Your task to perform on an android device: What's on my calendar today? Image 0: 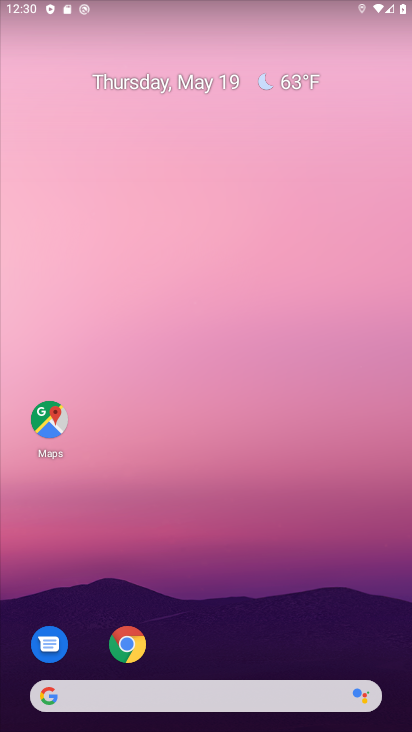
Step 0: drag from (400, 682) to (368, 269)
Your task to perform on an android device: What's on my calendar today? Image 1: 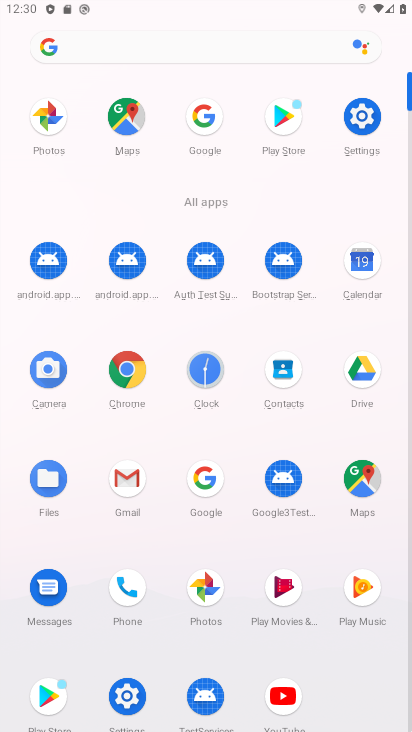
Step 1: click (365, 266)
Your task to perform on an android device: What's on my calendar today? Image 2: 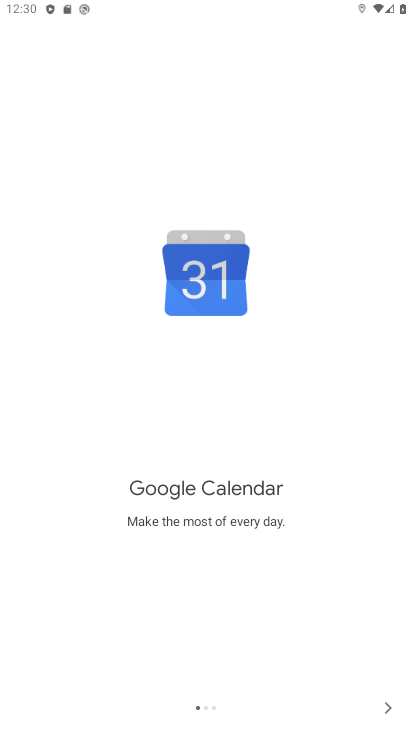
Step 2: click (390, 708)
Your task to perform on an android device: What's on my calendar today? Image 3: 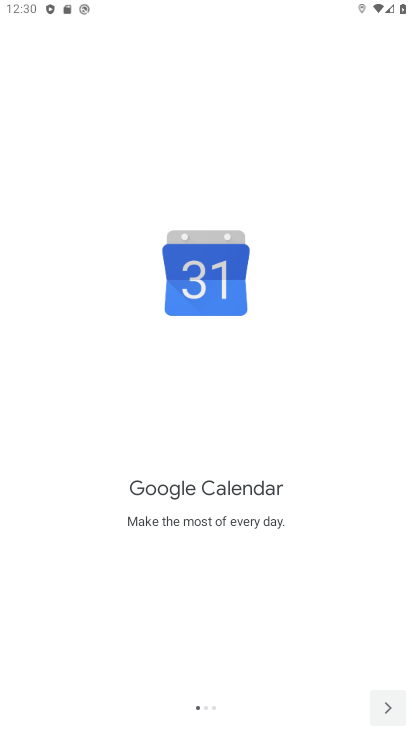
Step 3: click (387, 705)
Your task to perform on an android device: What's on my calendar today? Image 4: 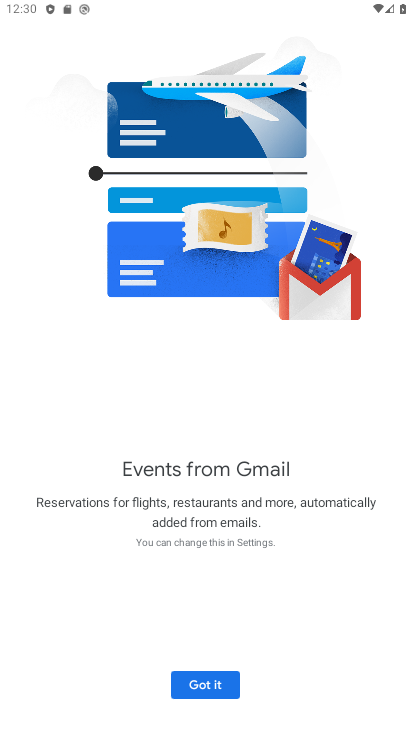
Step 4: click (200, 679)
Your task to perform on an android device: What's on my calendar today? Image 5: 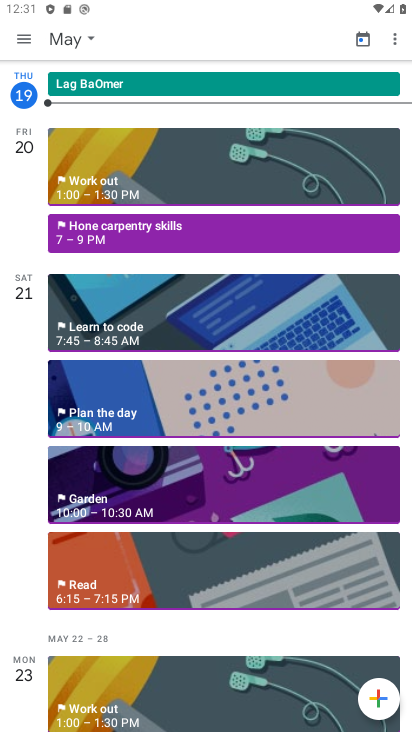
Step 5: click (21, 40)
Your task to perform on an android device: What's on my calendar today? Image 6: 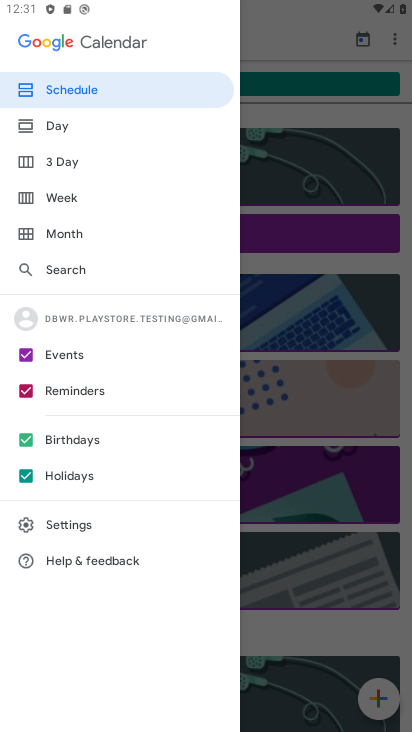
Step 6: click (306, 125)
Your task to perform on an android device: What's on my calendar today? Image 7: 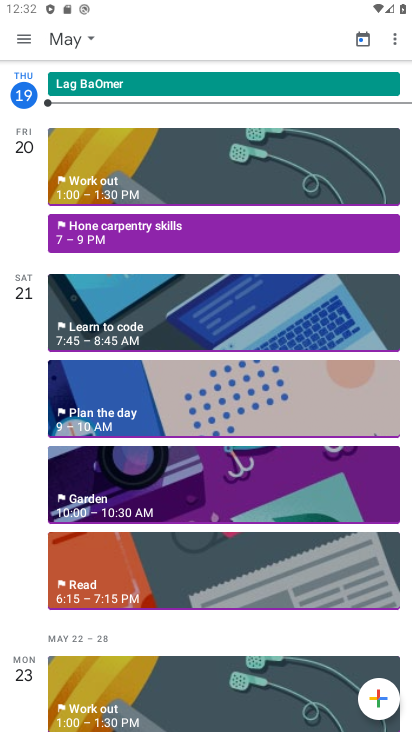
Step 7: click (15, 94)
Your task to perform on an android device: What's on my calendar today? Image 8: 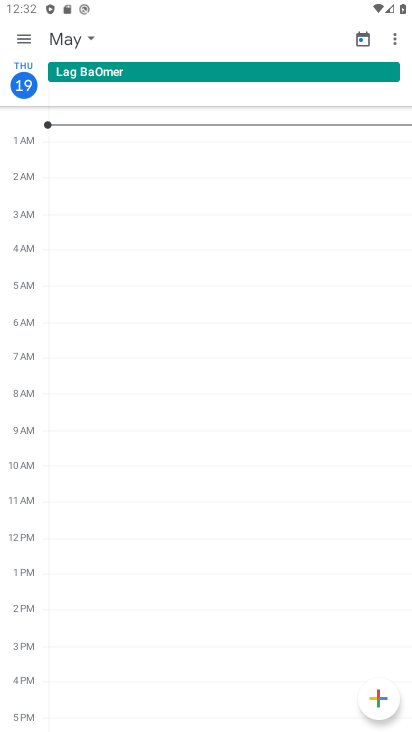
Step 8: click (87, 39)
Your task to perform on an android device: What's on my calendar today? Image 9: 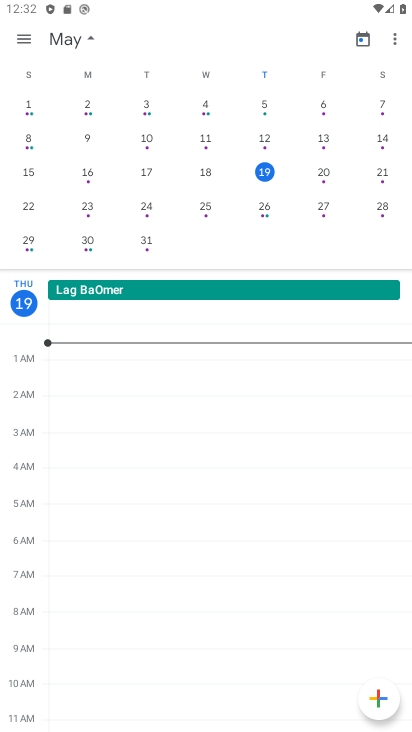
Step 9: click (259, 165)
Your task to perform on an android device: What's on my calendar today? Image 10: 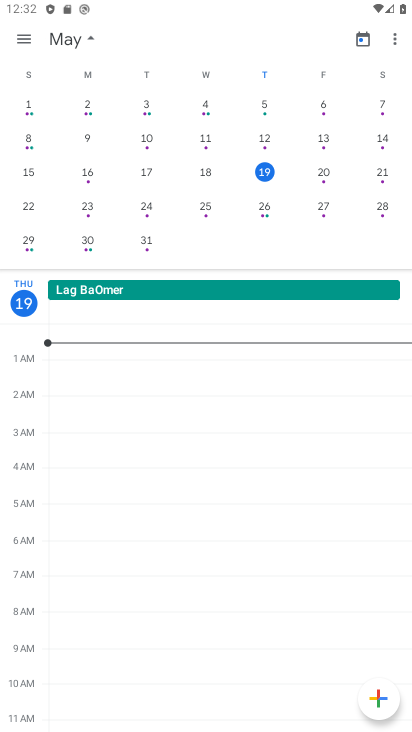
Step 10: click (259, 170)
Your task to perform on an android device: What's on my calendar today? Image 11: 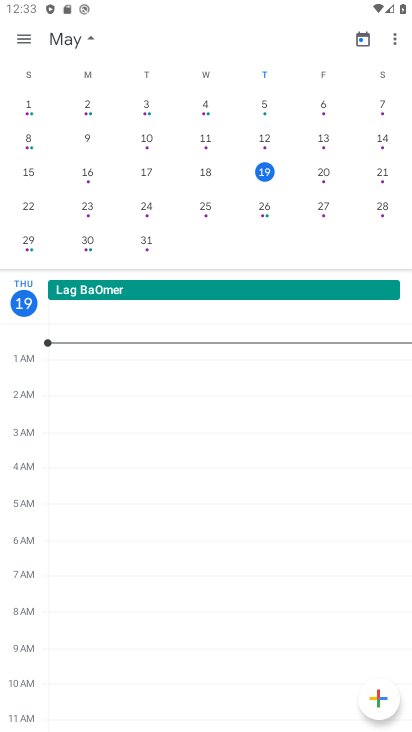
Step 11: click (22, 303)
Your task to perform on an android device: What's on my calendar today? Image 12: 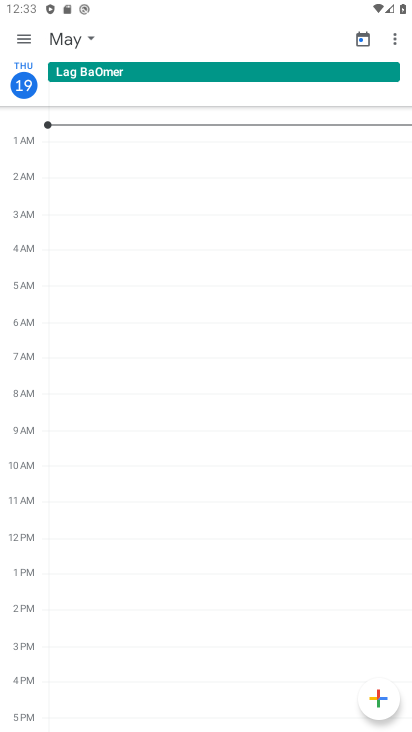
Step 12: task complete